Your task to perform on an android device: What's on my calendar tomorrow? Image 0: 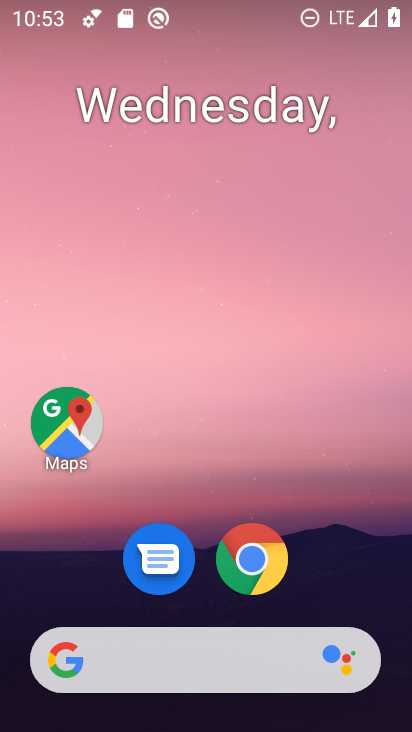
Step 0: drag from (346, 584) to (357, 145)
Your task to perform on an android device: What's on my calendar tomorrow? Image 1: 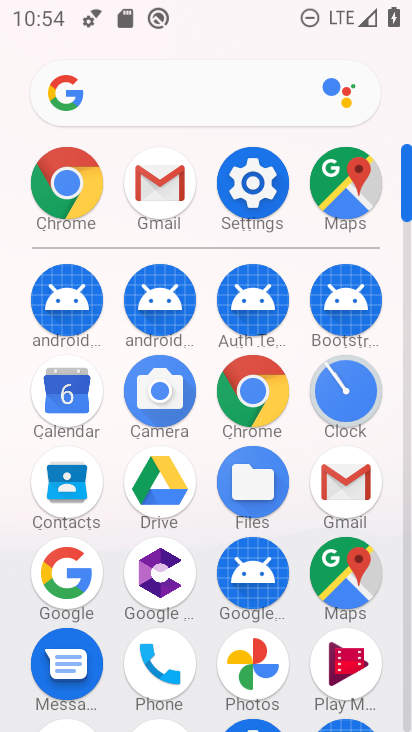
Step 1: click (75, 393)
Your task to perform on an android device: What's on my calendar tomorrow? Image 2: 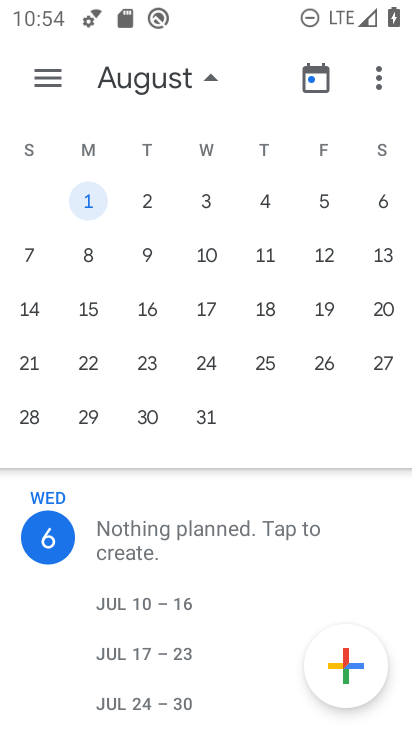
Step 2: drag from (36, 171) to (387, 254)
Your task to perform on an android device: What's on my calendar tomorrow? Image 3: 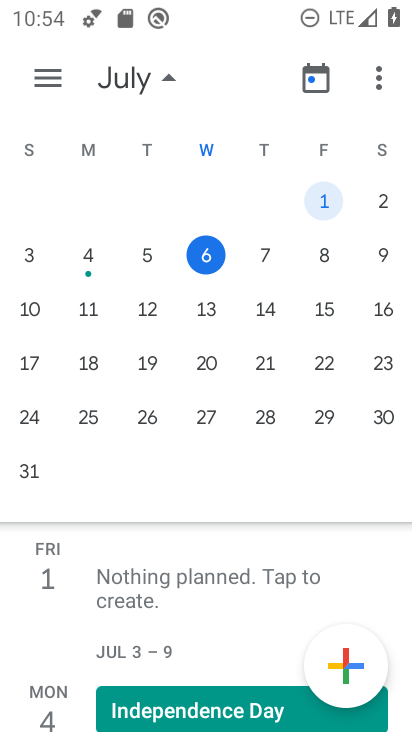
Step 3: click (51, 182)
Your task to perform on an android device: What's on my calendar tomorrow? Image 4: 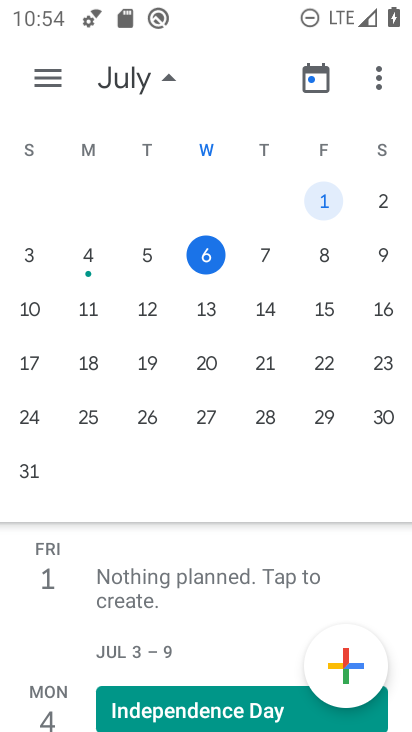
Step 4: click (323, 255)
Your task to perform on an android device: What's on my calendar tomorrow? Image 5: 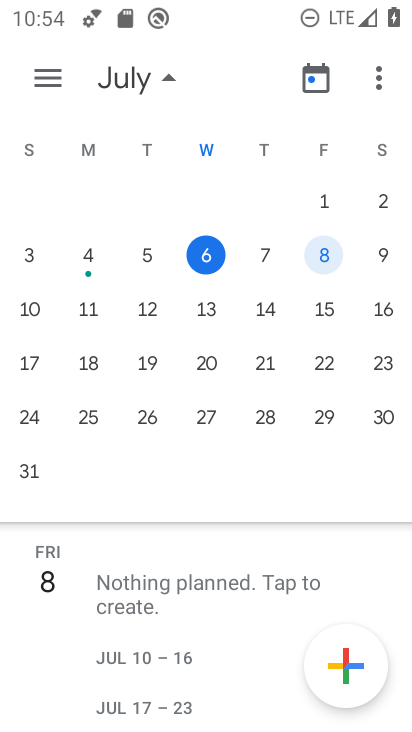
Step 5: task complete